Your task to perform on an android device: Open network settings Image 0: 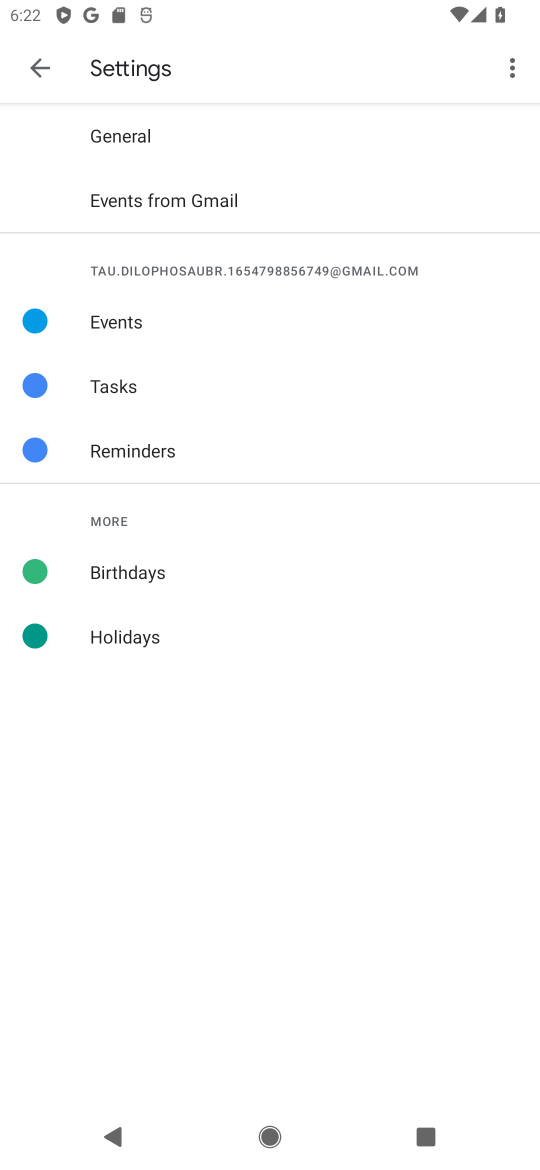
Step 0: press home button
Your task to perform on an android device: Open network settings Image 1: 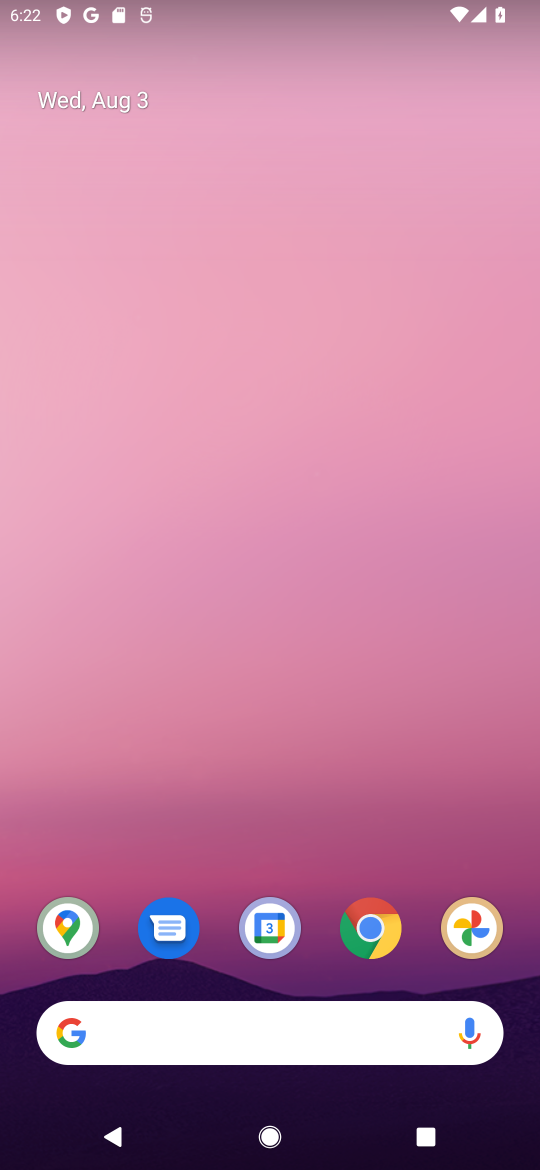
Step 1: drag from (322, 859) to (333, 99)
Your task to perform on an android device: Open network settings Image 2: 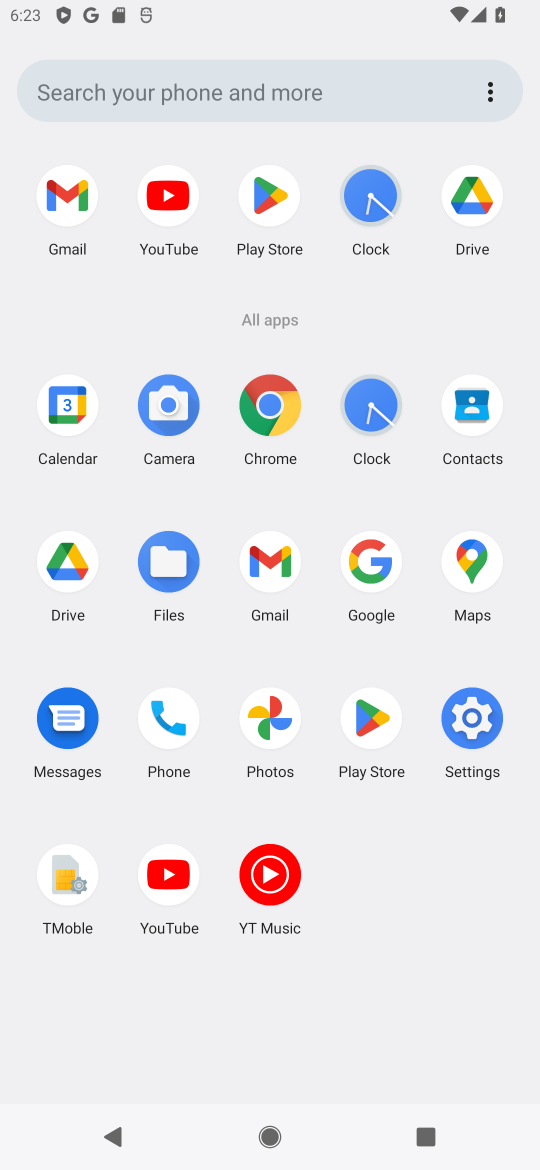
Step 2: click (475, 722)
Your task to perform on an android device: Open network settings Image 3: 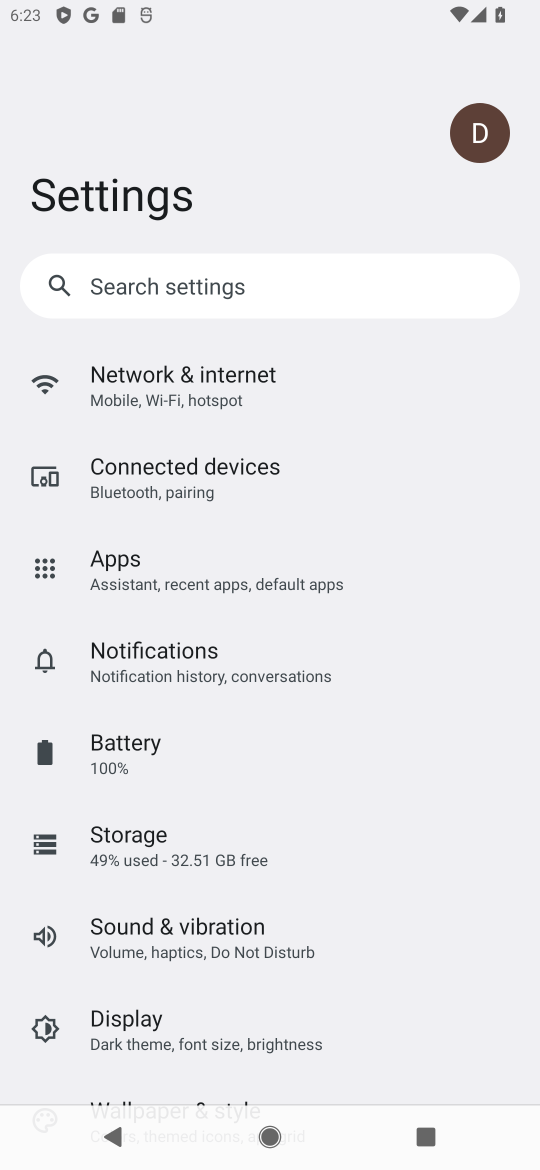
Step 3: drag from (442, 915) to (446, 697)
Your task to perform on an android device: Open network settings Image 4: 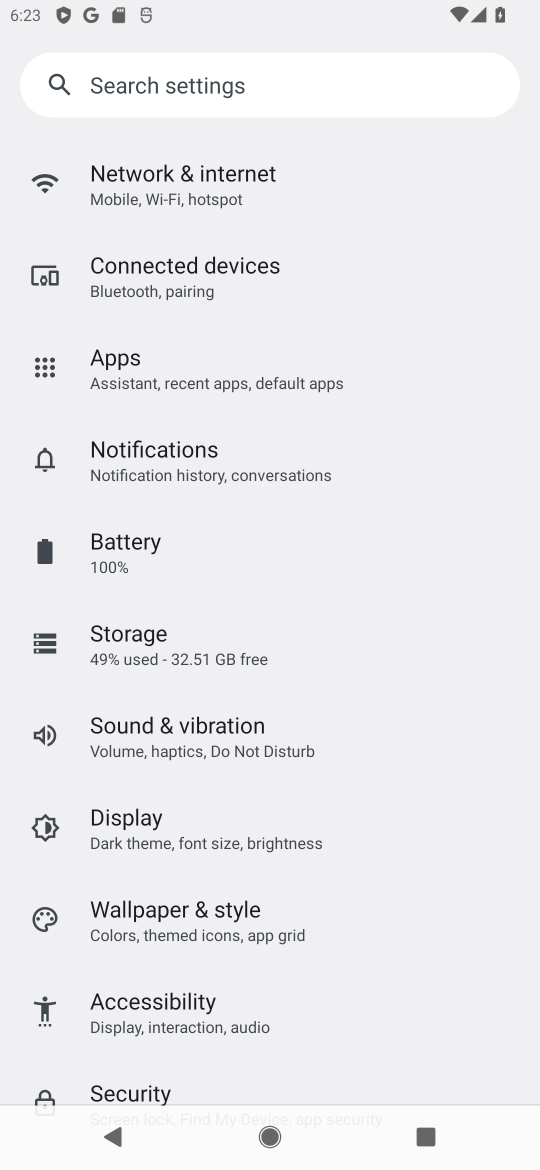
Step 4: drag from (420, 927) to (447, 684)
Your task to perform on an android device: Open network settings Image 5: 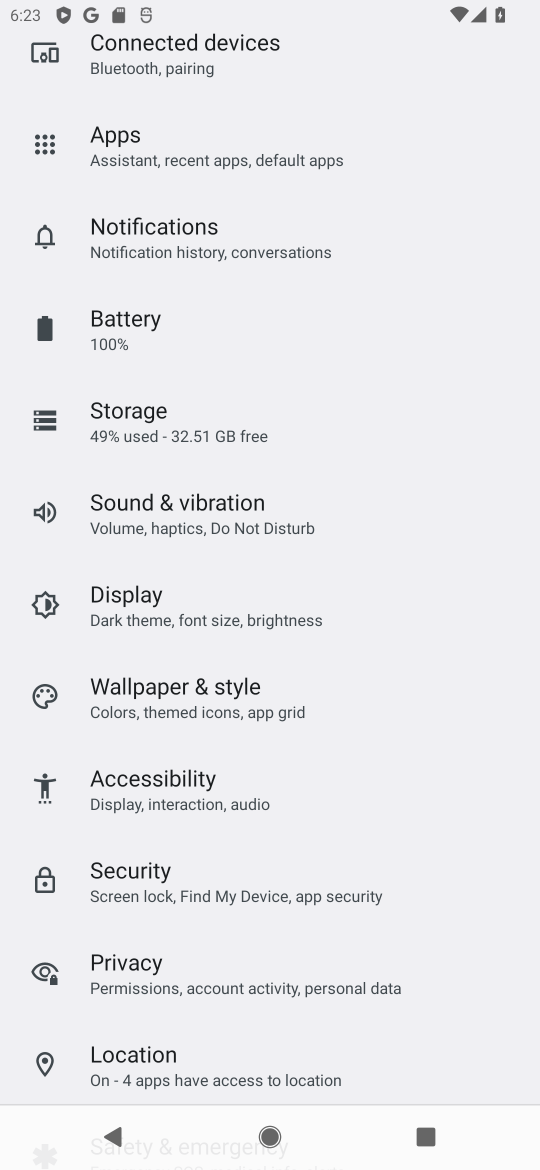
Step 5: drag from (455, 993) to (450, 728)
Your task to perform on an android device: Open network settings Image 6: 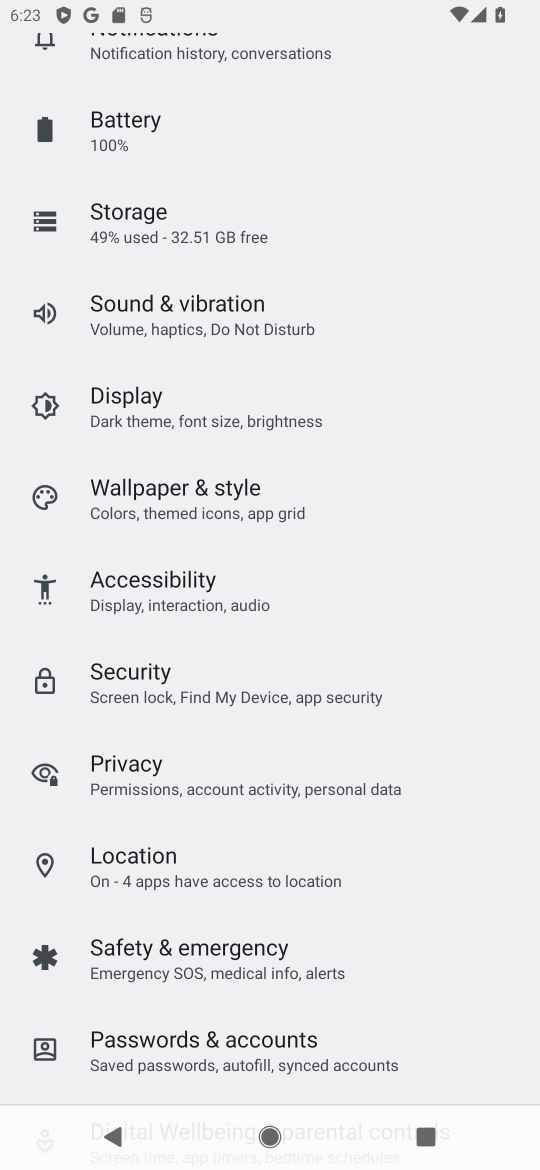
Step 6: drag from (433, 986) to (452, 706)
Your task to perform on an android device: Open network settings Image 7: 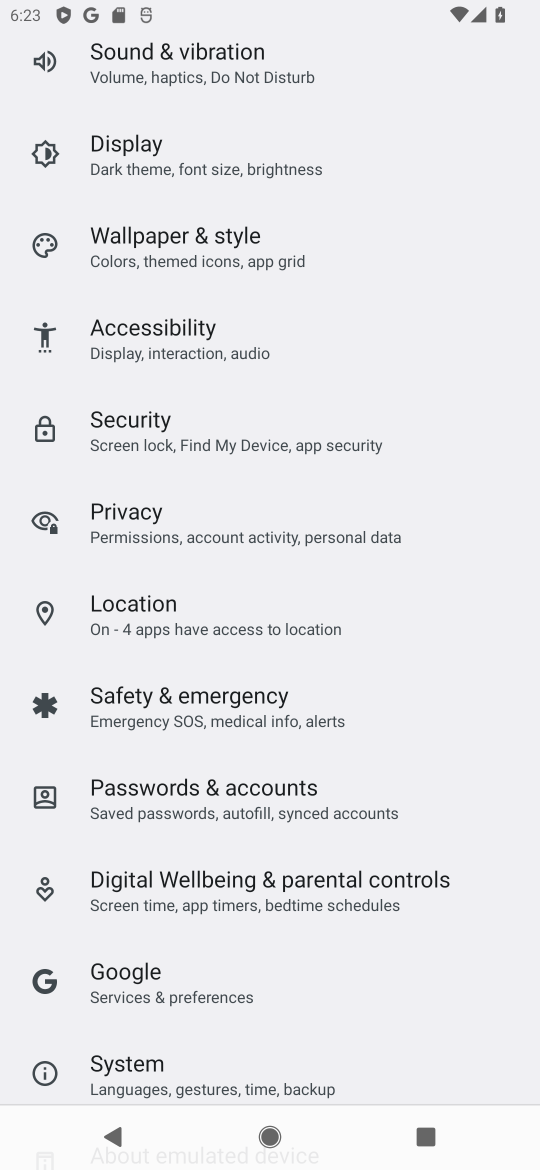
Step 7: drag from (444, 966) to (474, 678)
Your task to perform on an android device: Open network settings Image 8: 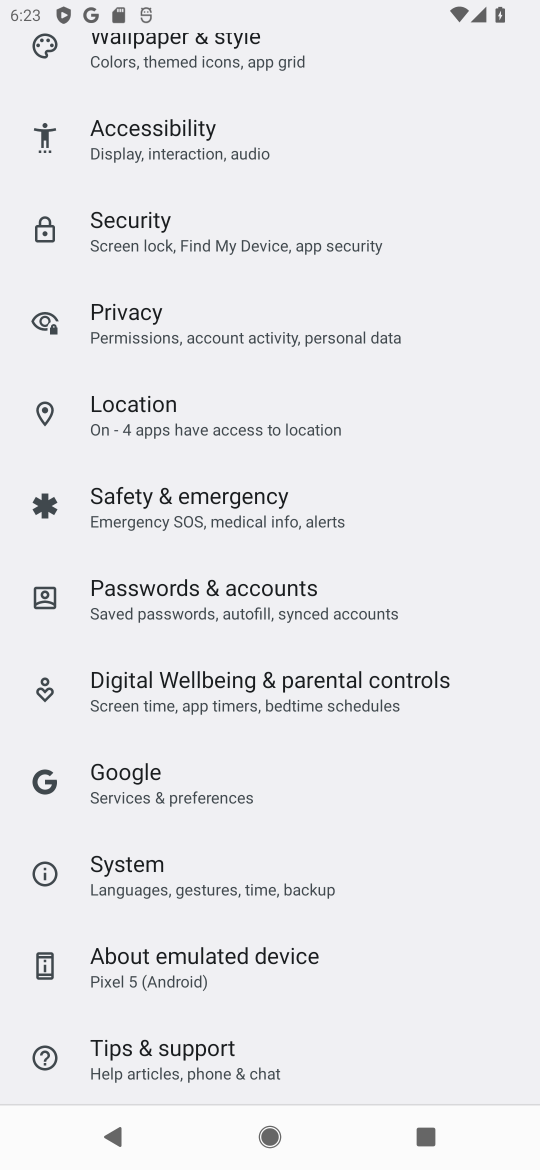
Step 8: drag from (431, 980) to (472, 711)
Your task to perform on an android device: Open network settings Image 9: 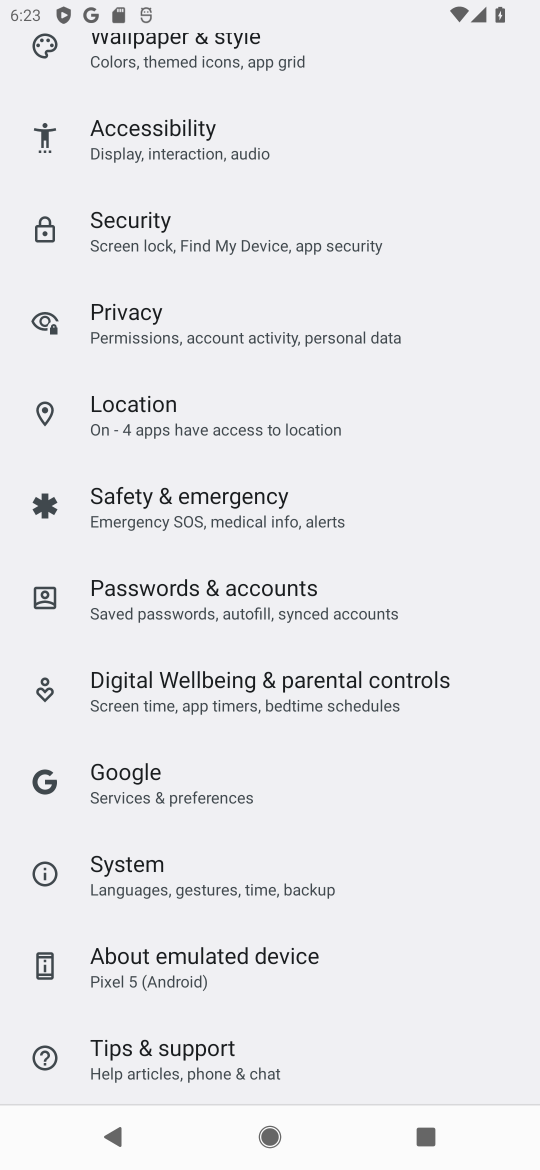
Step 9: drag from (474, 531) to (477, 714)
Your task to perform on an android device: Open network settings Image 10: 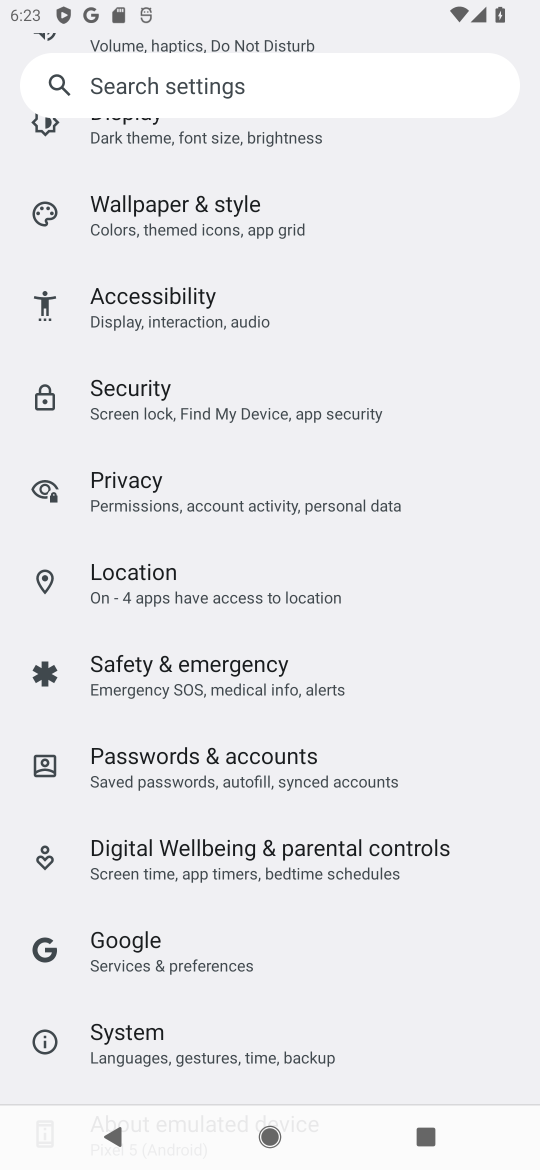
Step 10: drag from (470, 400) to (466, 614)
Your task to perform on an android device: Open network settings Image 11: 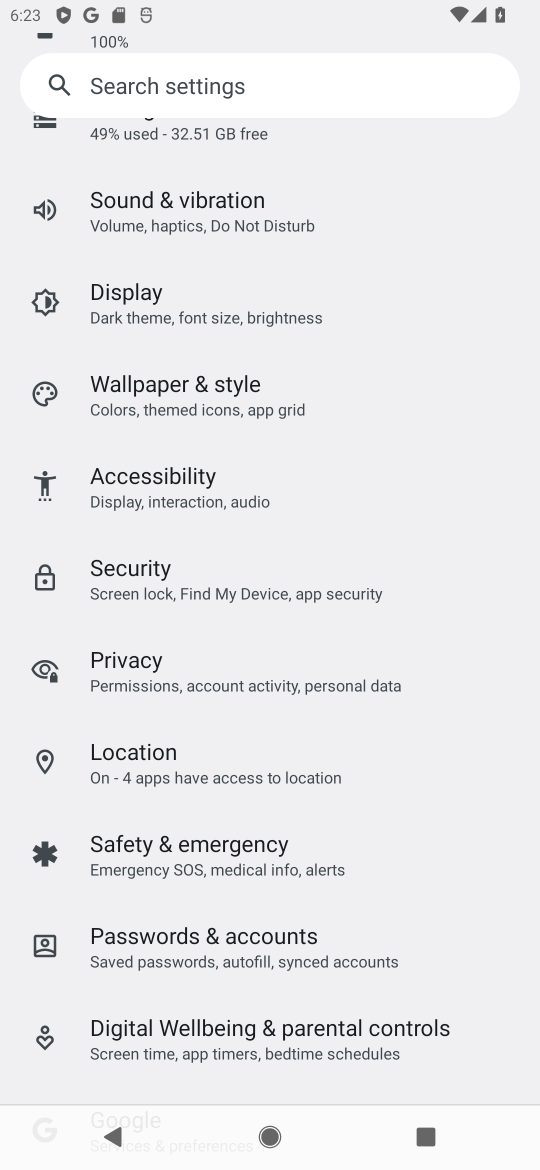
Step 11: drag from (455, 321) to (449, 556)
Your task to perform on an android device: Open network settings Image 12: 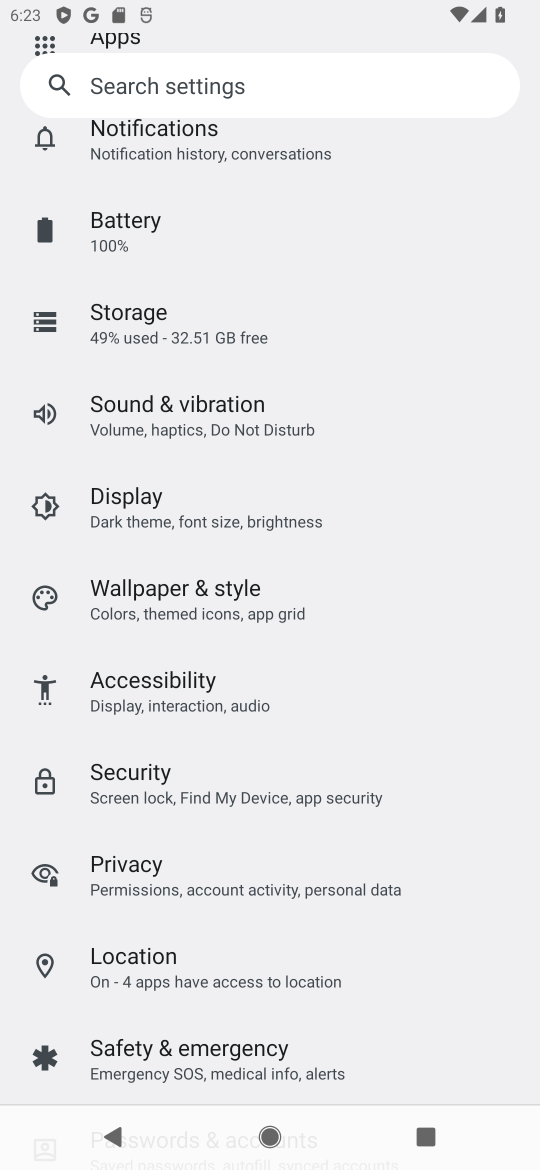
Step 12: drag from (449, 274) to (422, 684)
Your task to perform on an android device: Open network settings Image 13: 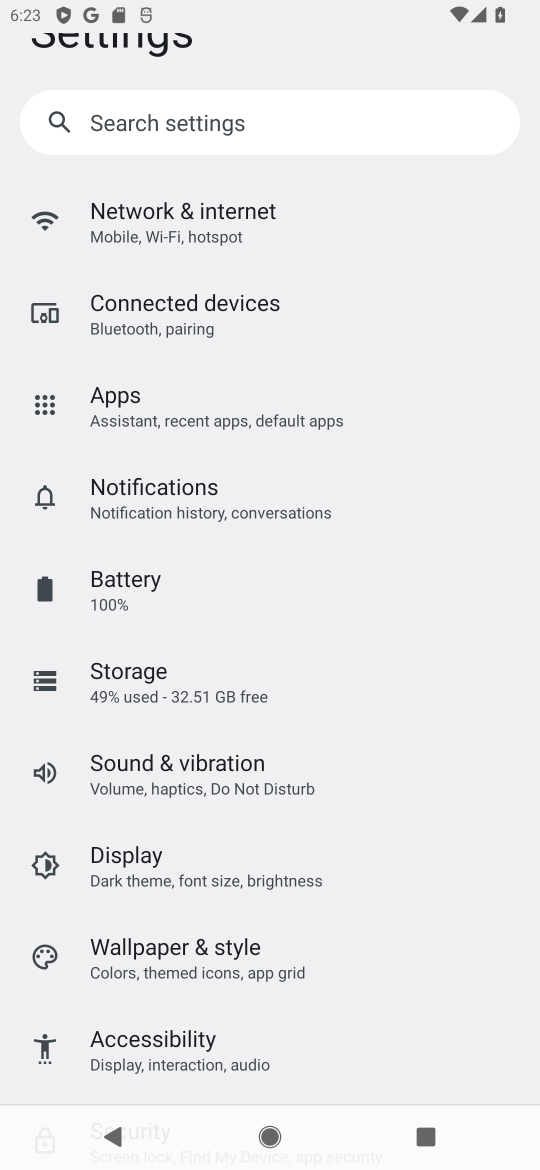
Step 13: drag from (398, 282) to (433, 703)
Your task to perform on an android device: Open network settings Image 14: 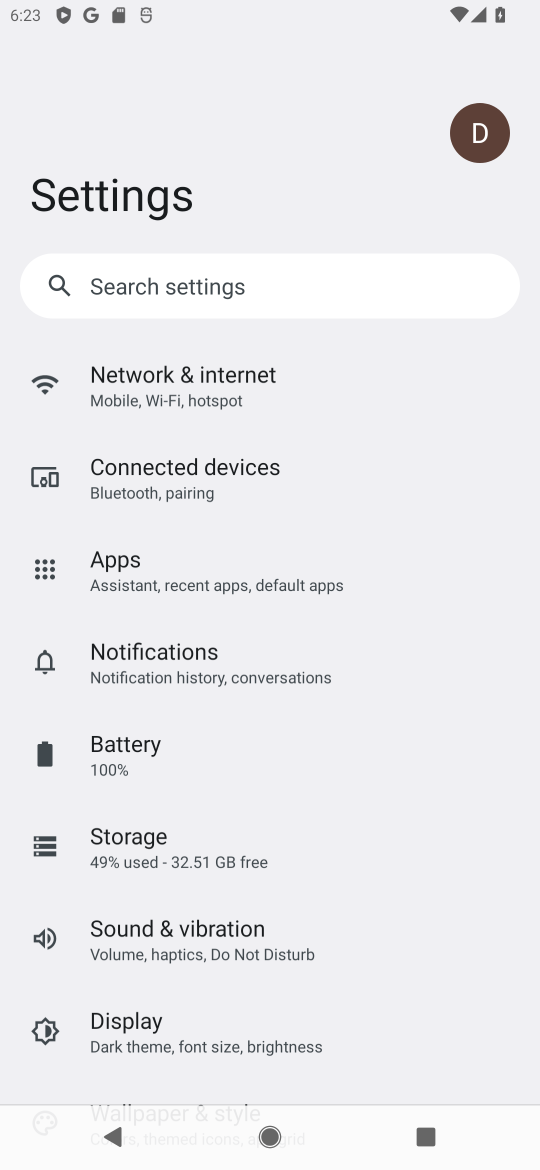
Step 14: click (232, 395)
Your task to perform on an android device: Open network settings Image 15: 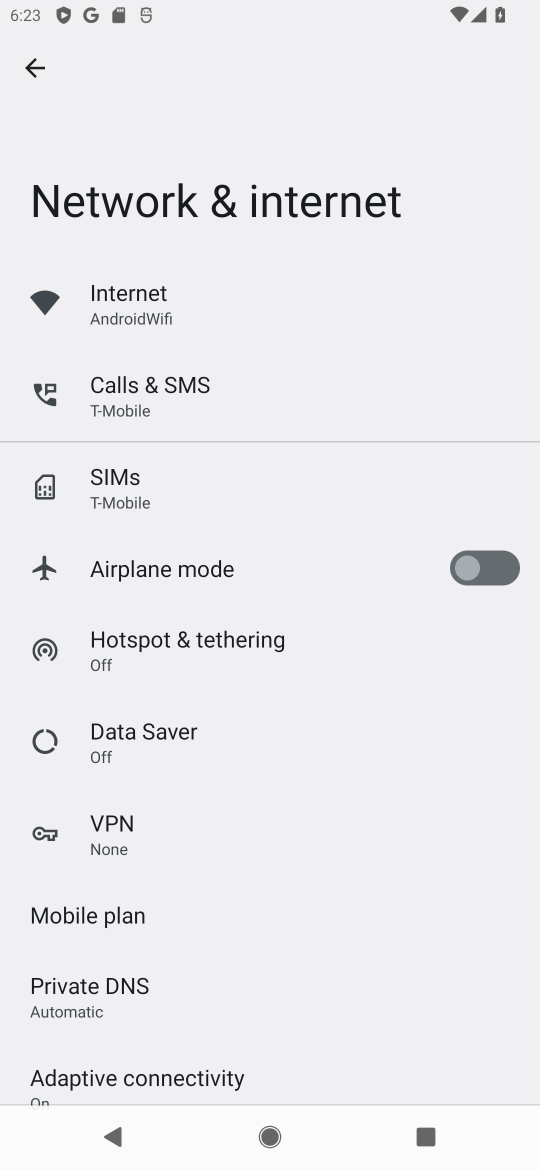
Step 15: task complete